Your task to perform on an android device: move an email to a new category in the gmail app Image 0: 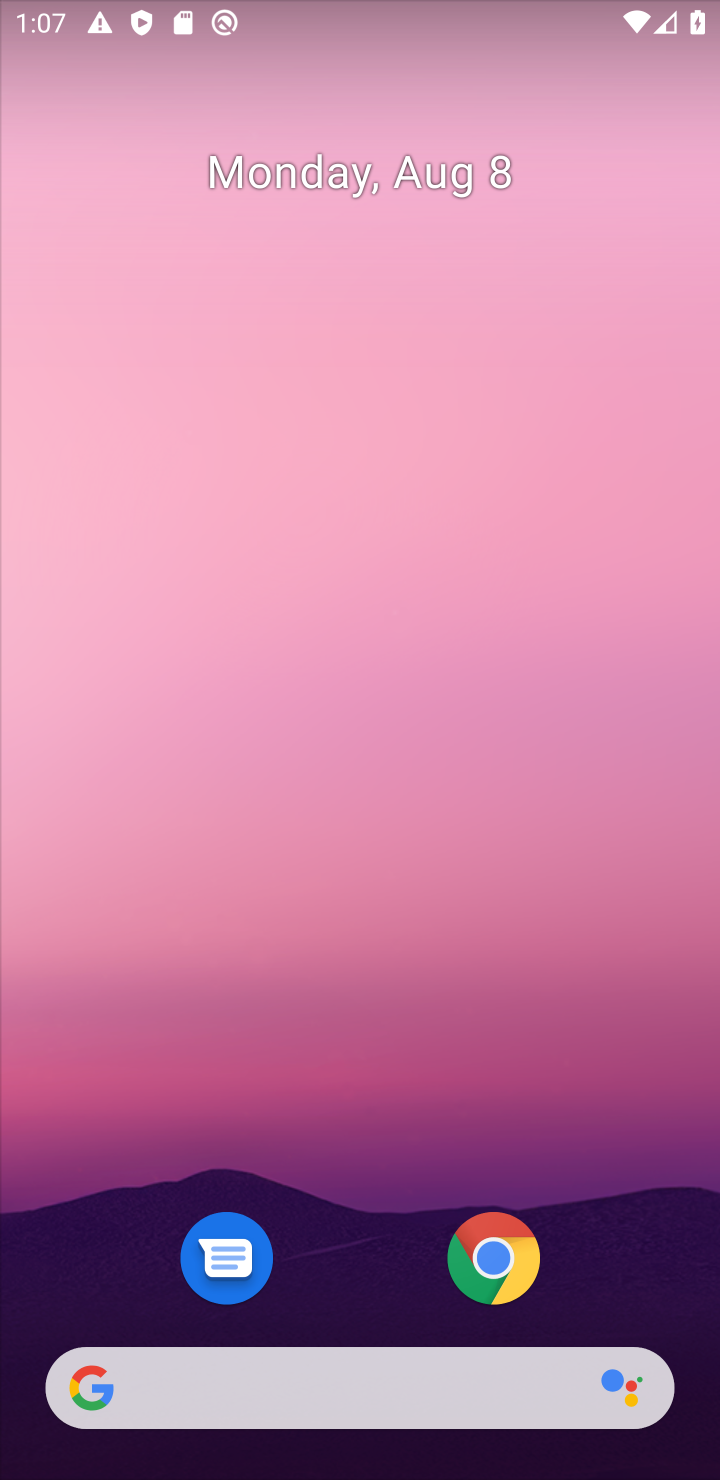
Step 0: drag from (368, 1338) to (386, 497)
Your task to perform on an android device: move an email to a new category in the gmail app Image 1: 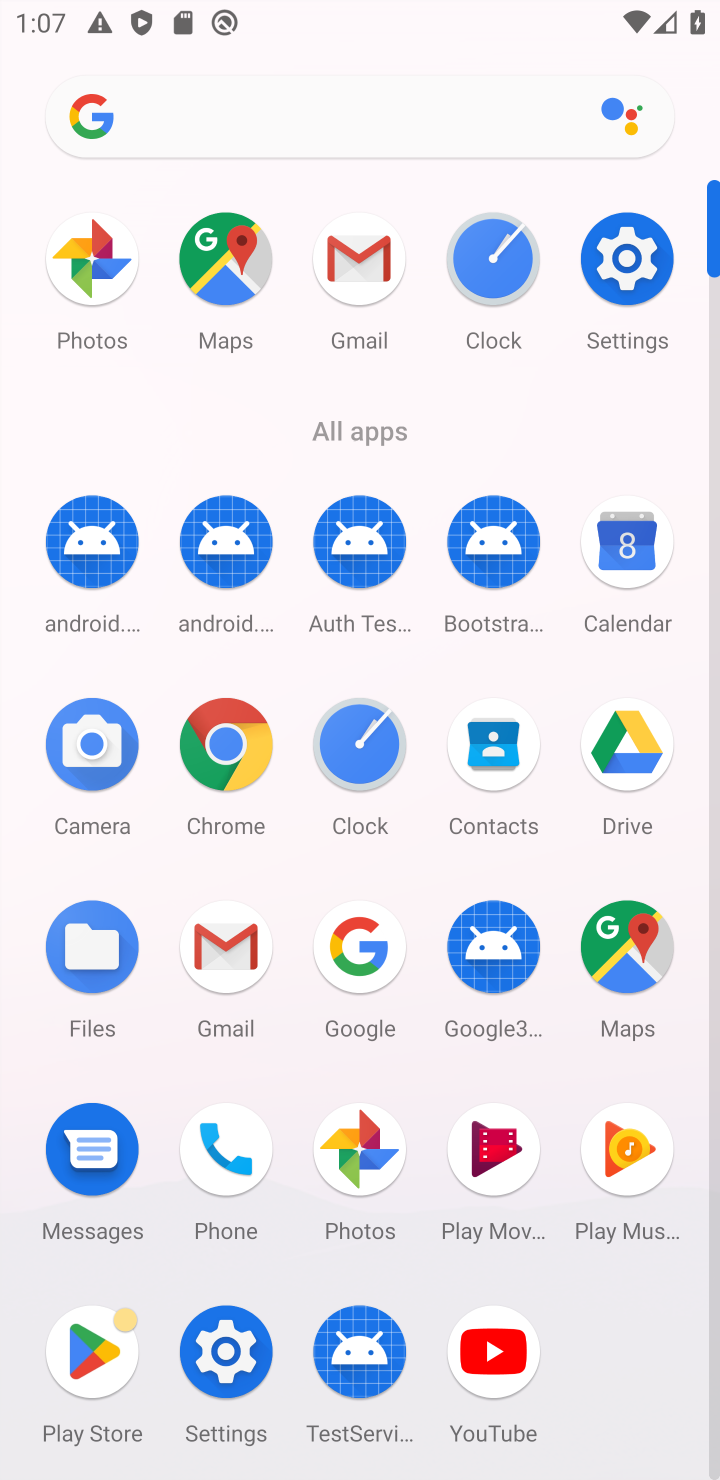
Step 1: click (223, 966)
Your task to perform on an android device: move an email to a new category in the gmail app Image 2: 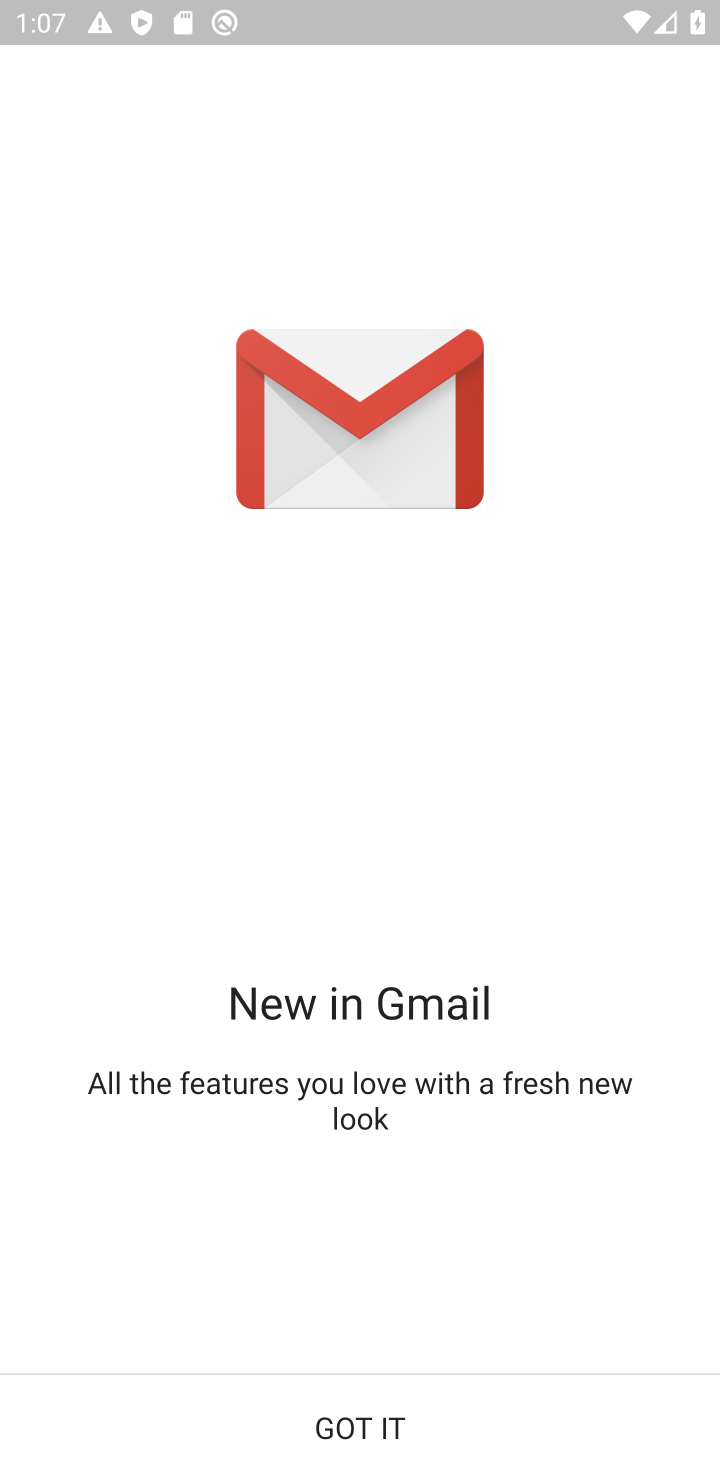
Step 2: click (342, 1434)
Your task to perform on an android device: move an email to a new category in the gmail app Image 3: 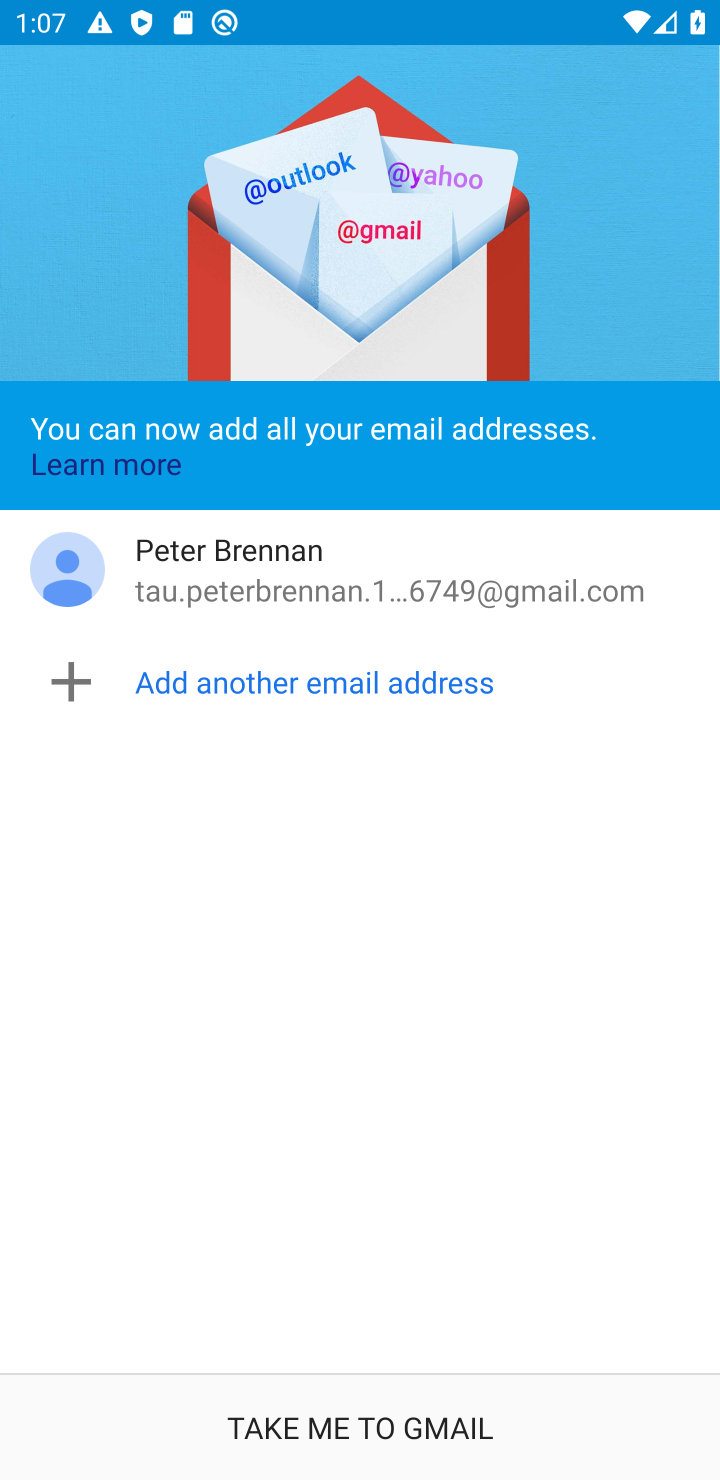
Step 3: click (407, 1432)
Your task to perform on an android device: move an email to a new category in the gmail app Image 4: 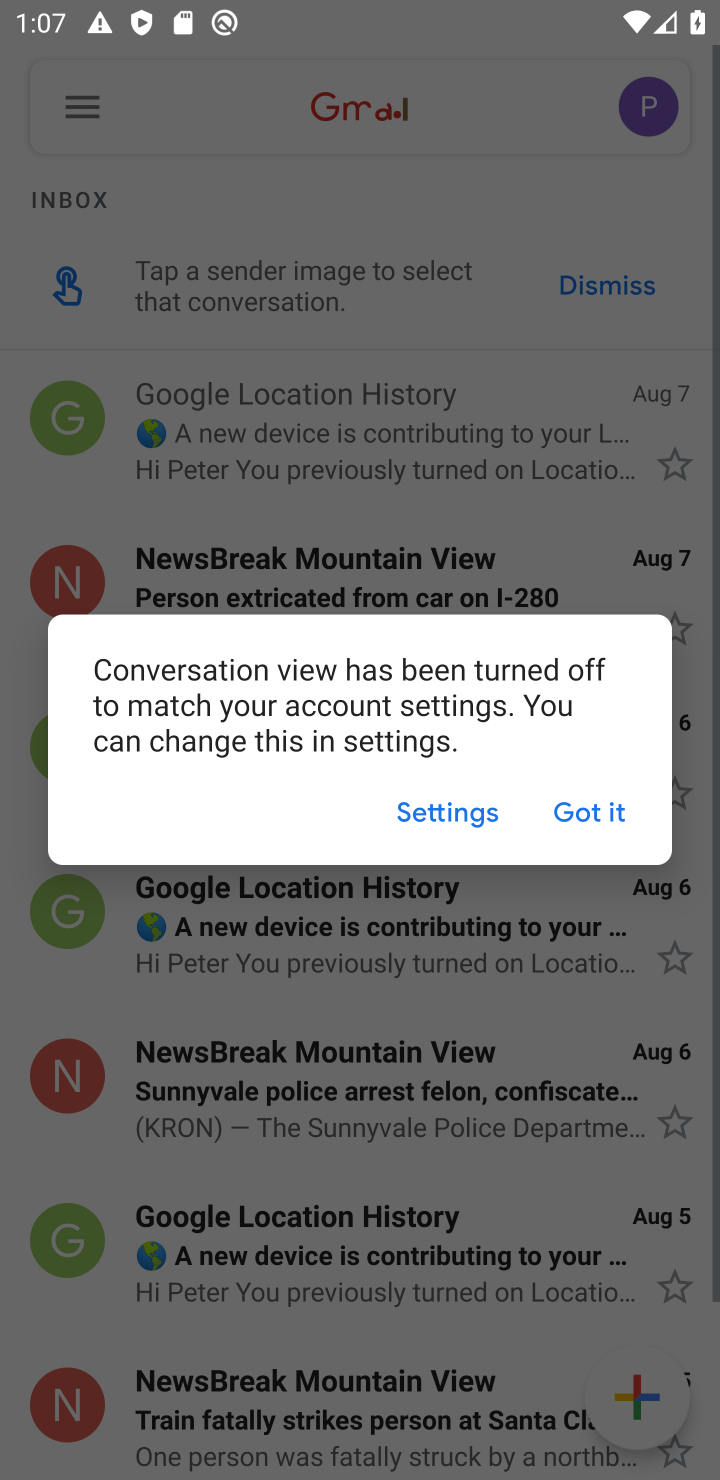
Step 4: click (598, 823)
Your task to perform on an android device: move an email to a new category in the gmail app Image 5: 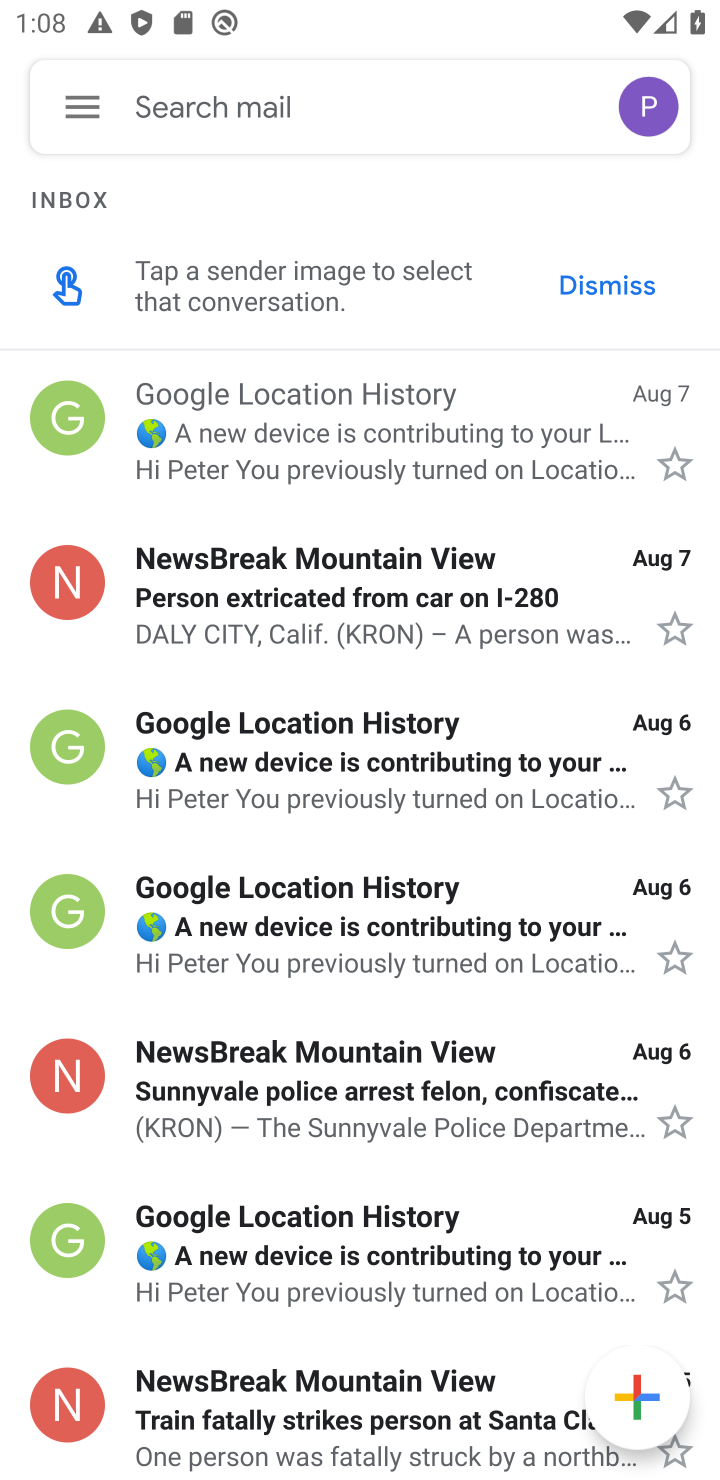
Step 5: click (353, 447)
Your task to perform on an android device: move an email to a new category in the gmail app Image 6: 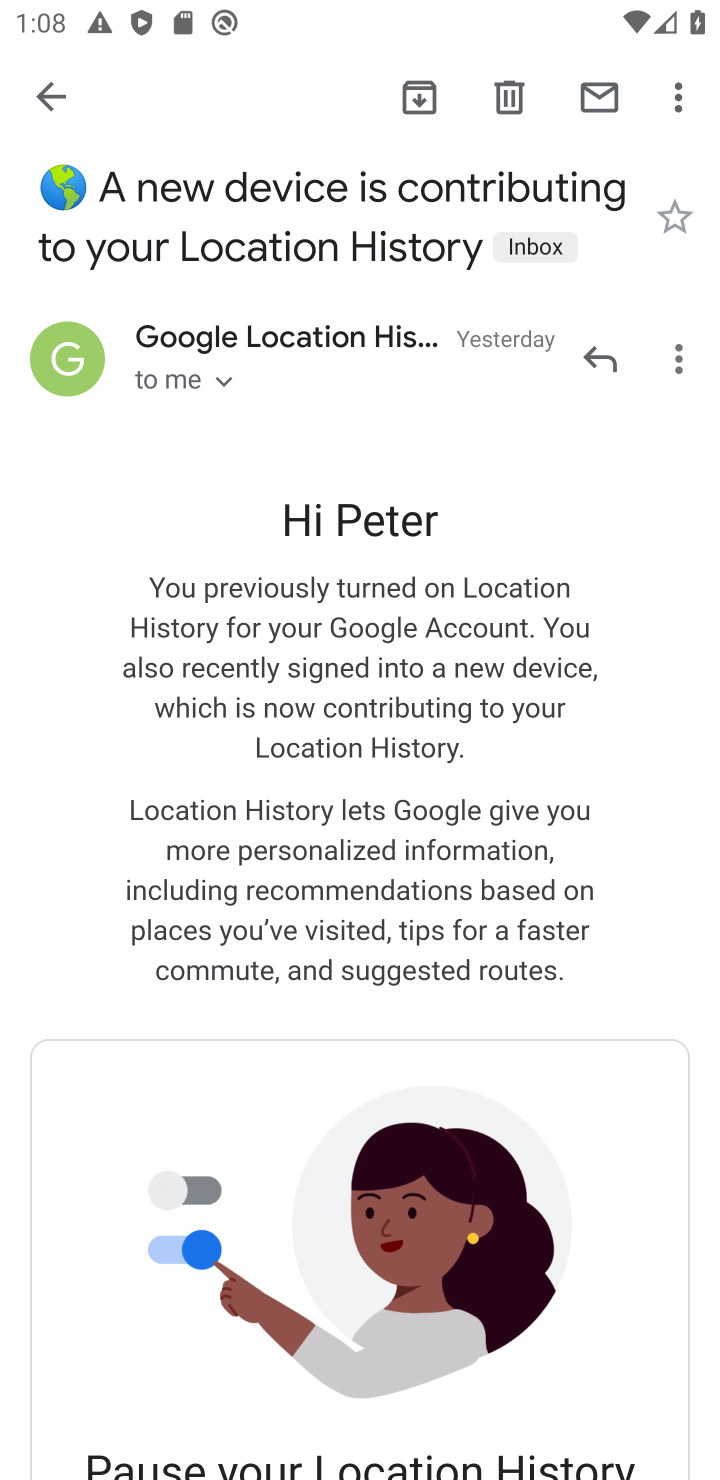
Step 6: click (353, 447)
Your task to perform on an android device: move an email to a new category in the gmail app Image 7: 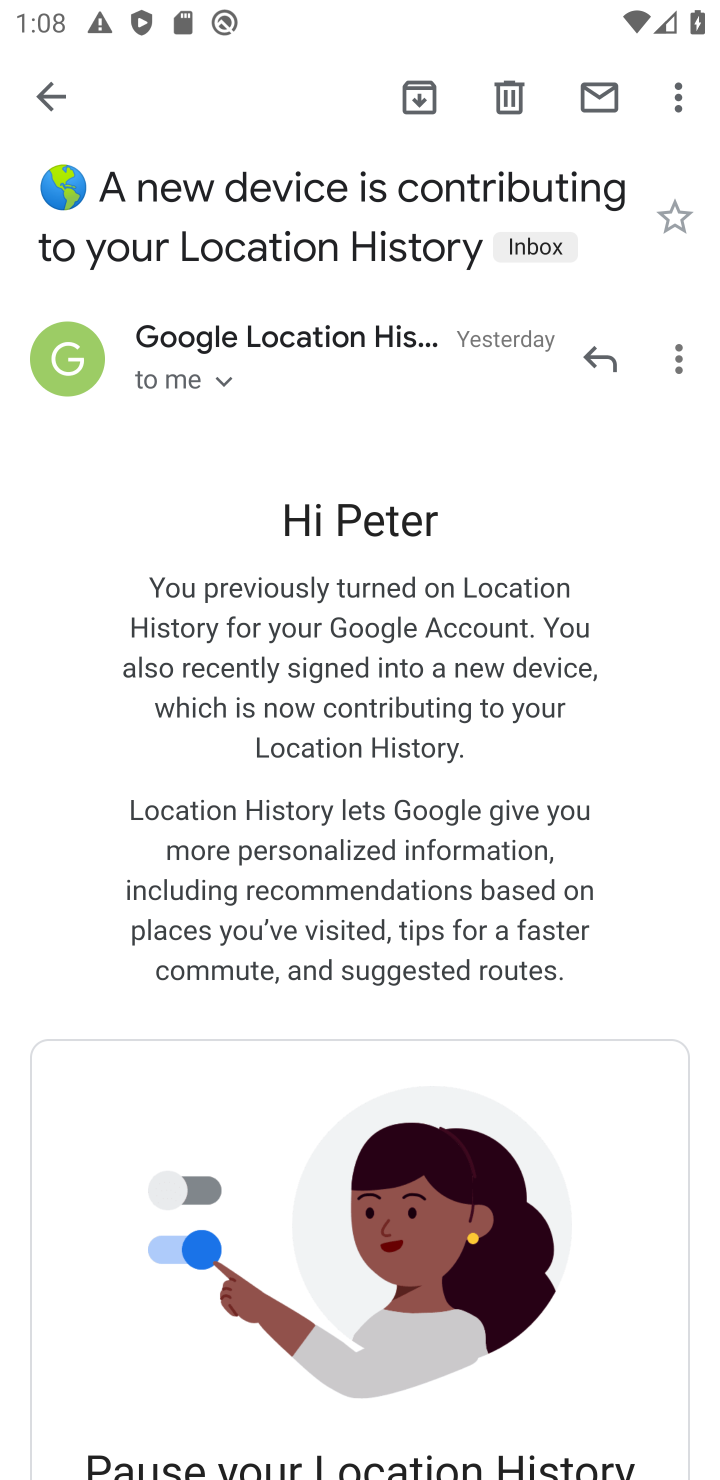
Step 7: click (677, 104)
Your task to perform on an android device: move an email to a new category in the gmail app Image 8: 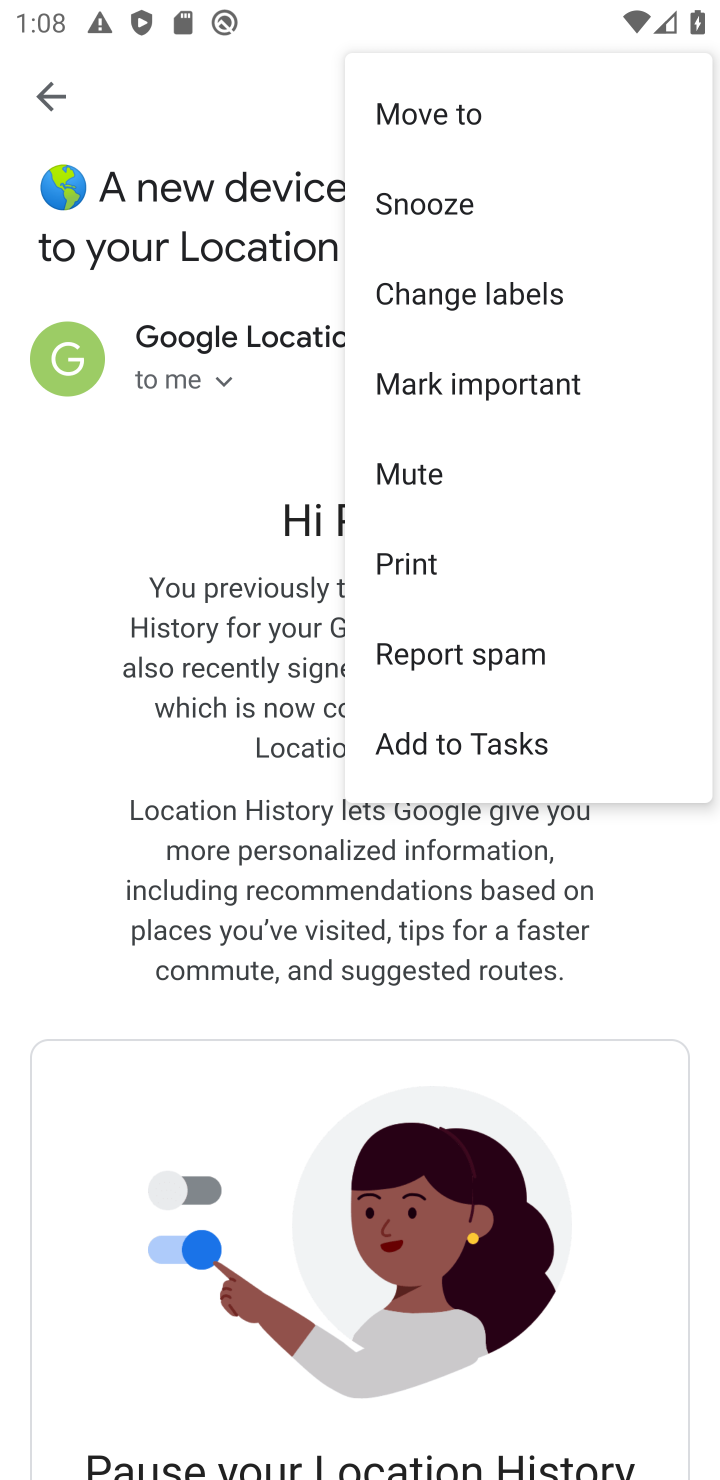
Step 8: click (502, 291)
Your task to perform on an android device: move an email to a new category in the gmail app Image 9: 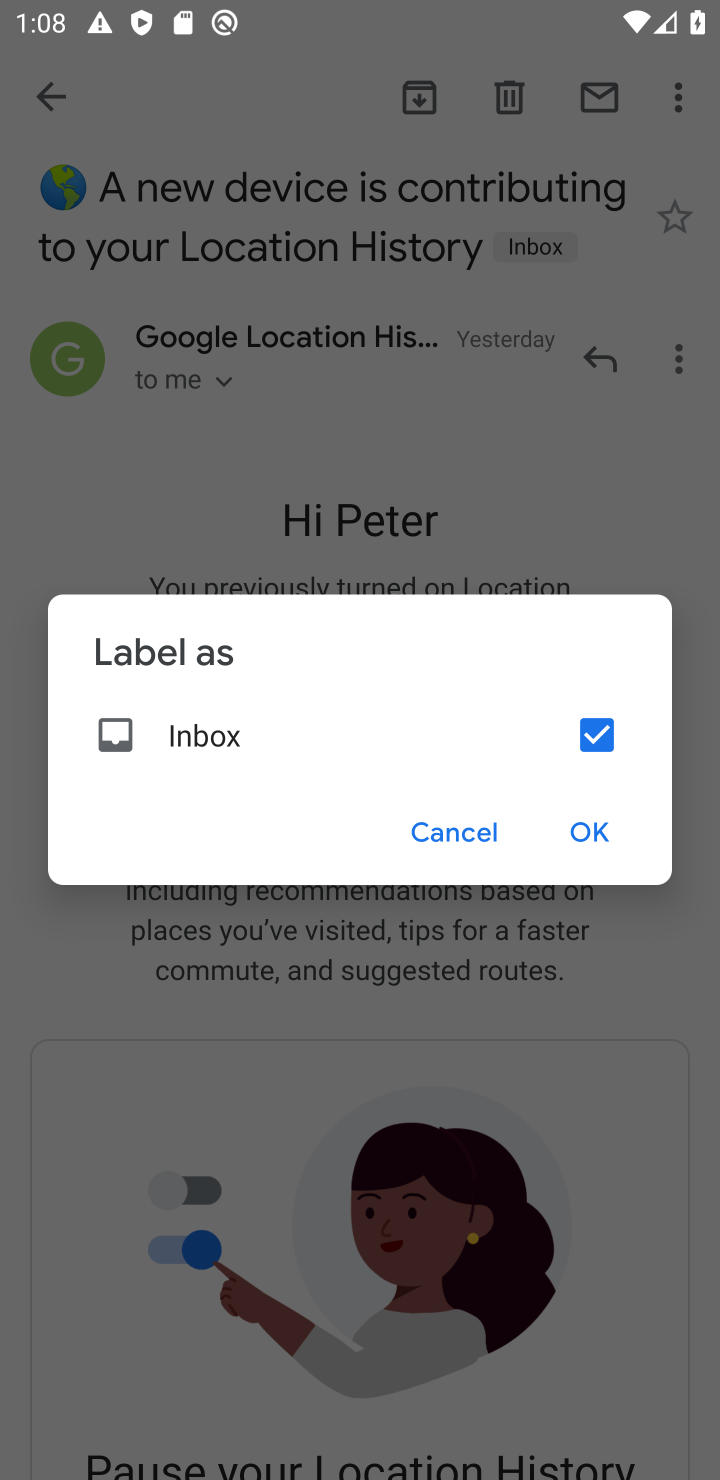
Step 9: click (585, 830)
Your task to perform on an android device: move an email to a new category in the gmail app Image 10: 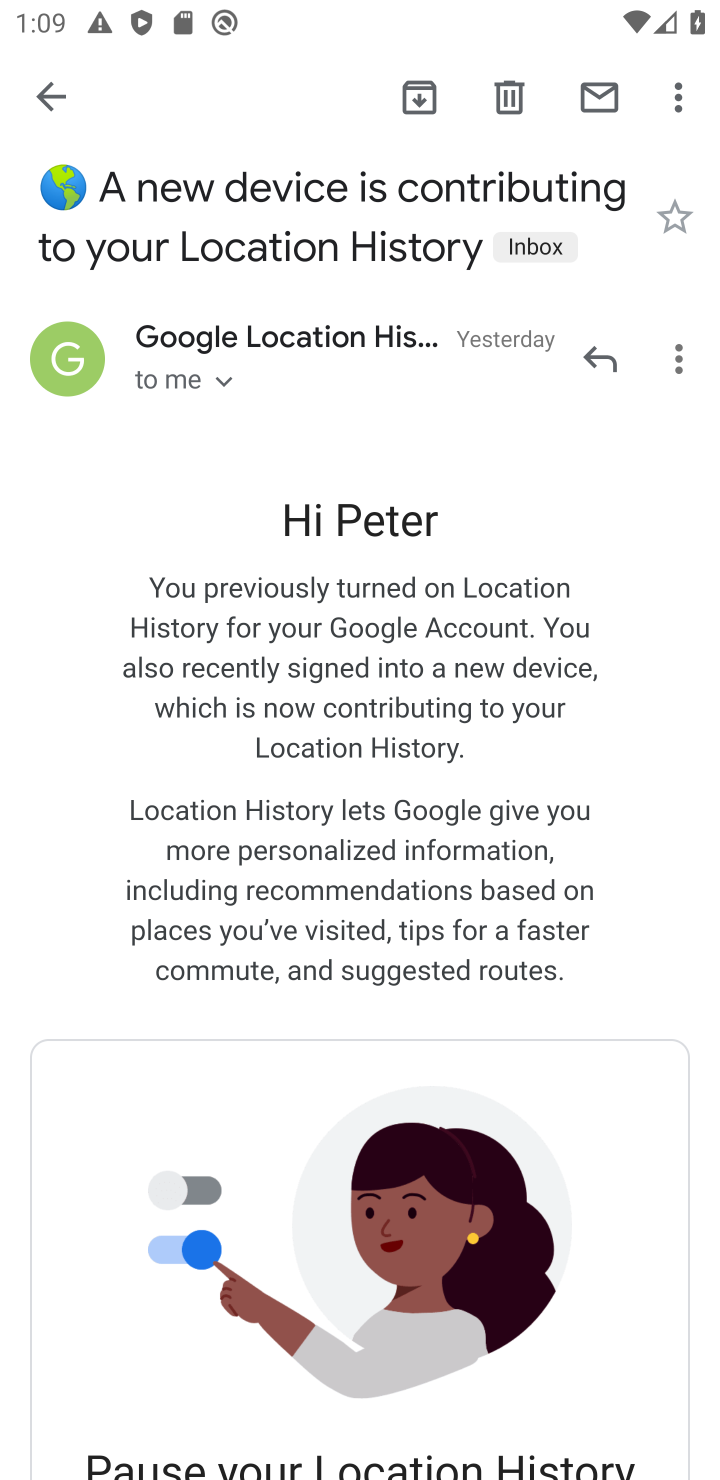
Step 10: task complete